Your task to perform on an android device: Open Google Chrome Image 0: 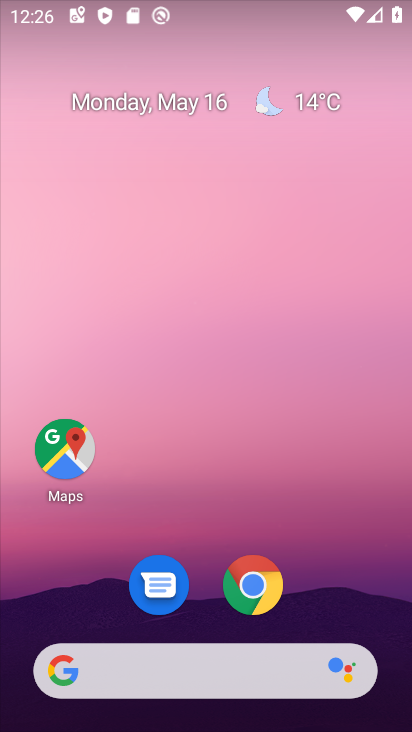
Step 0: click (265, 576)
Your task to perform on an android device: Open Google Chrome Image 1: 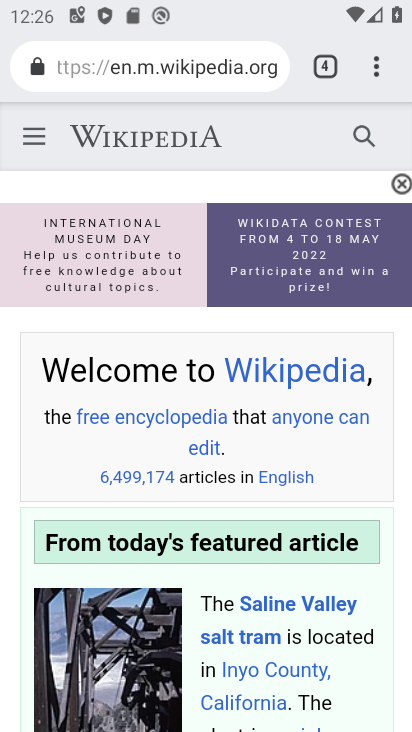
Step 1: task complete